Your task to perform on an android device: Open Yahoo.com Image 0: 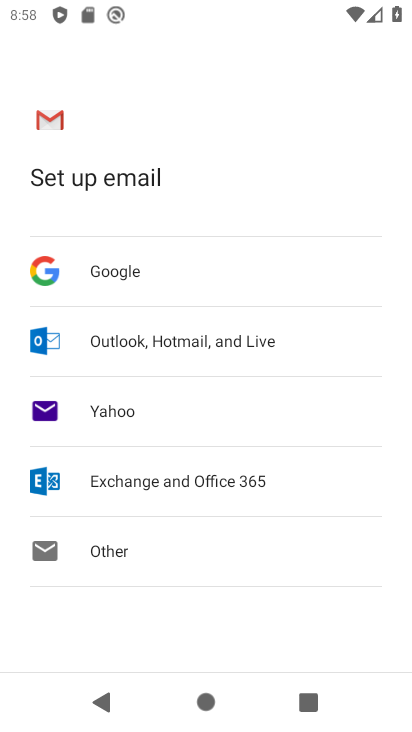
Step 0: press home button
Your task to perform on an android device: Open Yahoo.com Image 1: 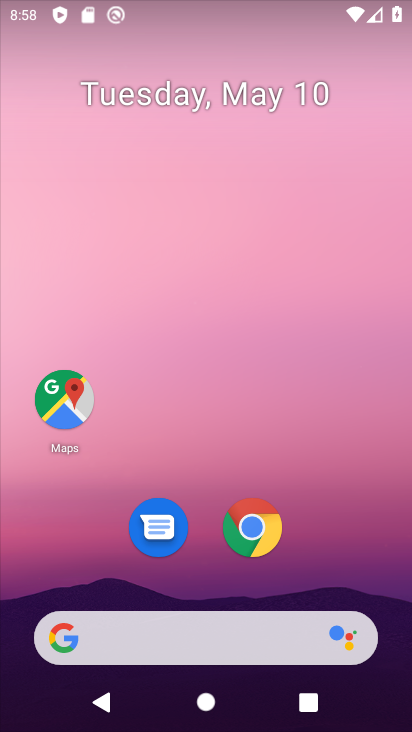
Step 1: click (269, 518)
Your task to perform on an android device: Open Yahoo.com Image 2: 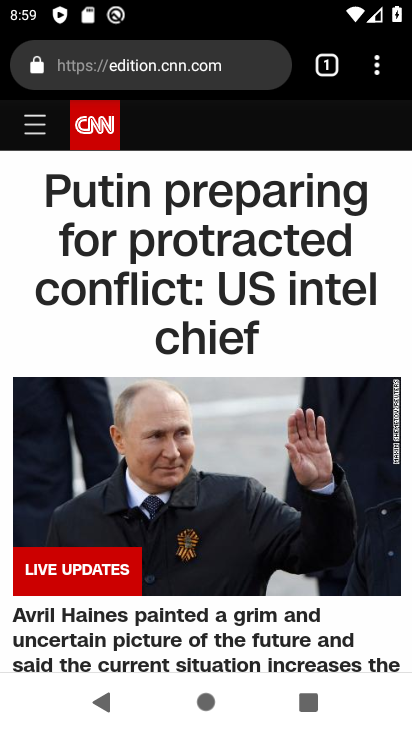
Step 2: click (310, 72)
Your task to perform on an android device: Open Yahoo.com Image 3: 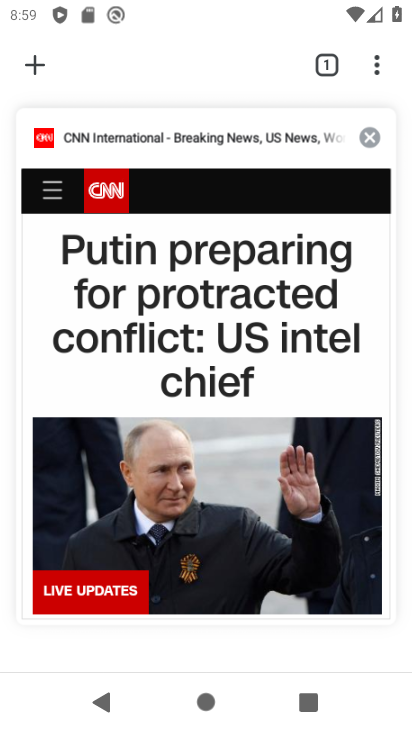
Step 3: click (38, 62)
Your task to perform on an android device: Open Yahoo.com Image 4: 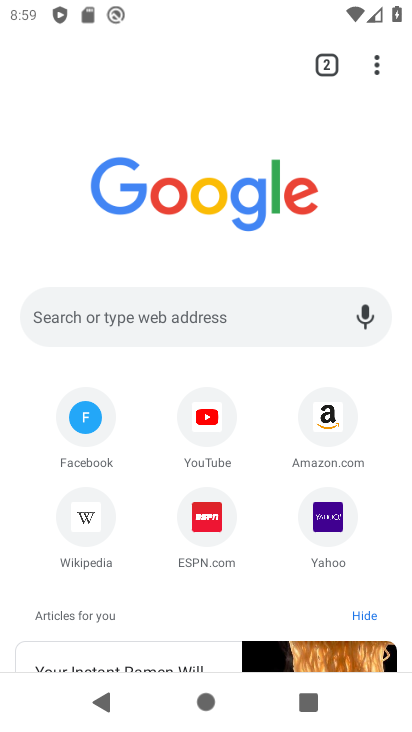
Step 4: click (315, 522)
Your task to perform on an android device: Open Yahoo.com Image 5: 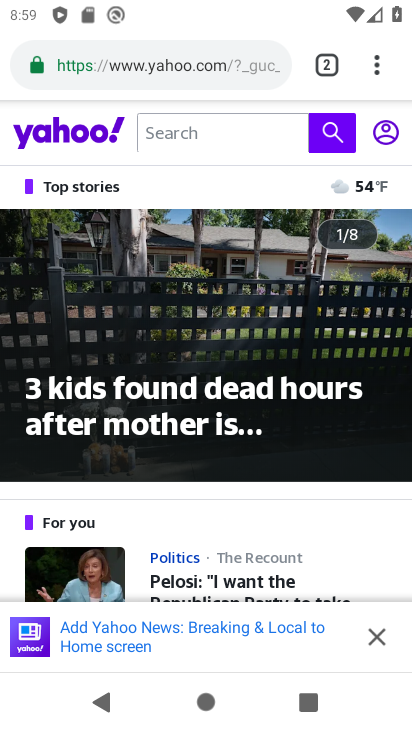
Step 5: task complete